Your task to perform on an android device: set the timer Image 0: 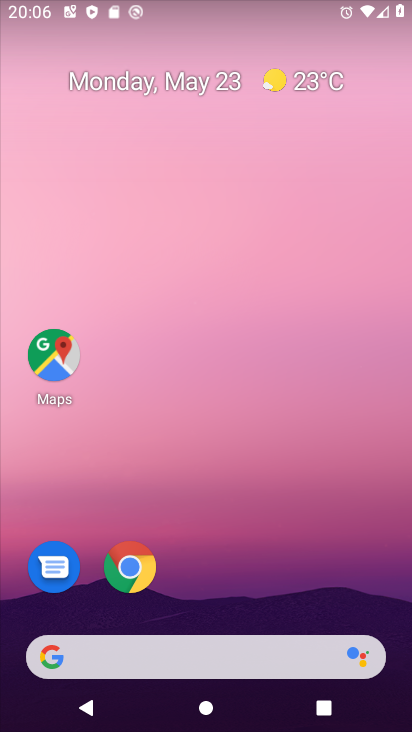
Step 0: drag from (225, 605) to (286, 290)
Your task to perform on an android device: set the timer Image 1: 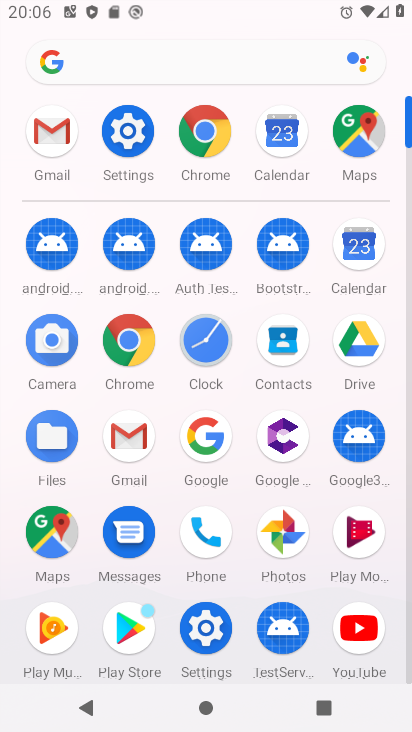
Step 1: click (217, 337)
Your task to perform on an android device: set the timer Image 2: 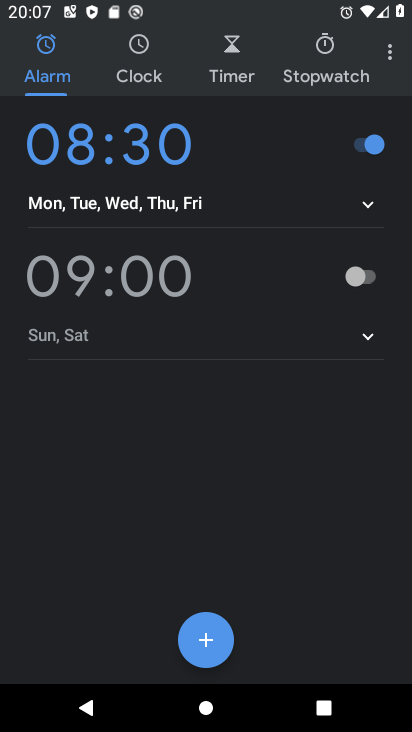
Step 2: click (222, 40)
Your task to perform on an android device: set the timer Image 3: 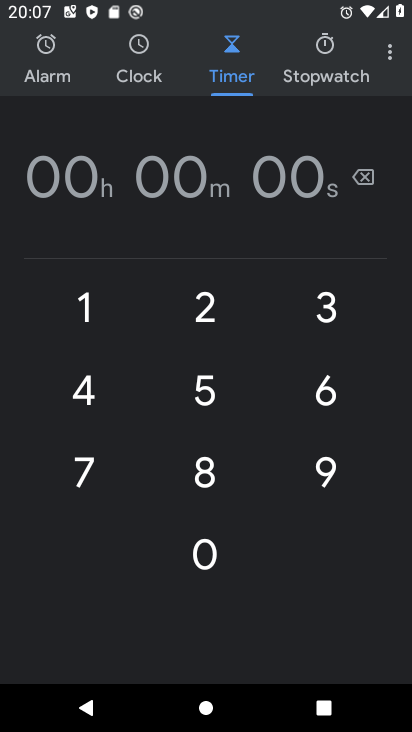
Step 3: click (107, 173)
Your task to perform on an android device: set the timer Image 4: 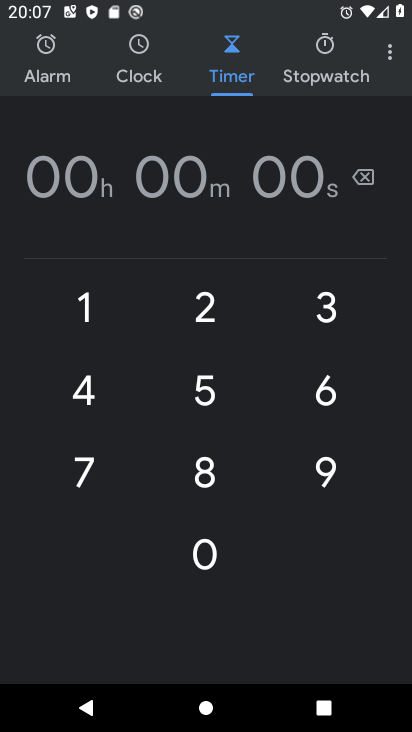
Step 4: type "09090909"
Your task to perform on an android device: set the timer Image 5: 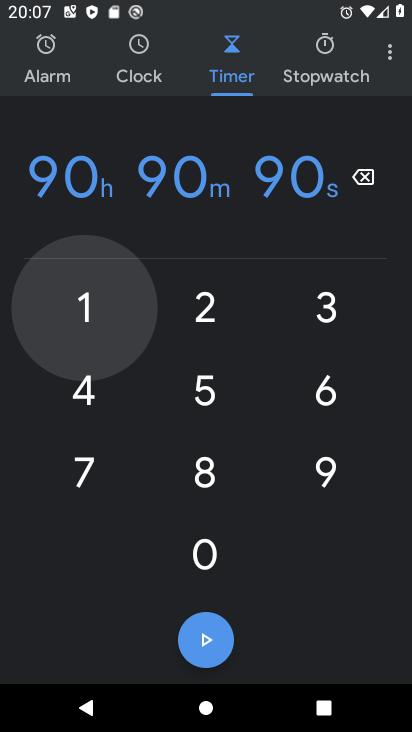
Step 5: click (196, 624)
Your task to perform on an android device: set the timer Image 6: 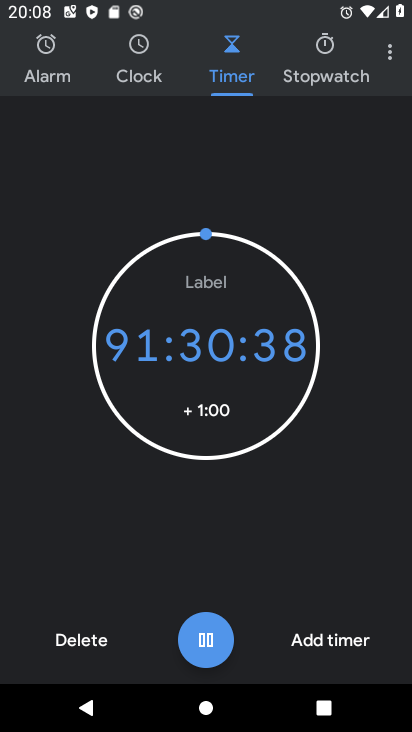
Step 6: task complete